Your task to perform on an android device: Go to accessibility settings Image 0: 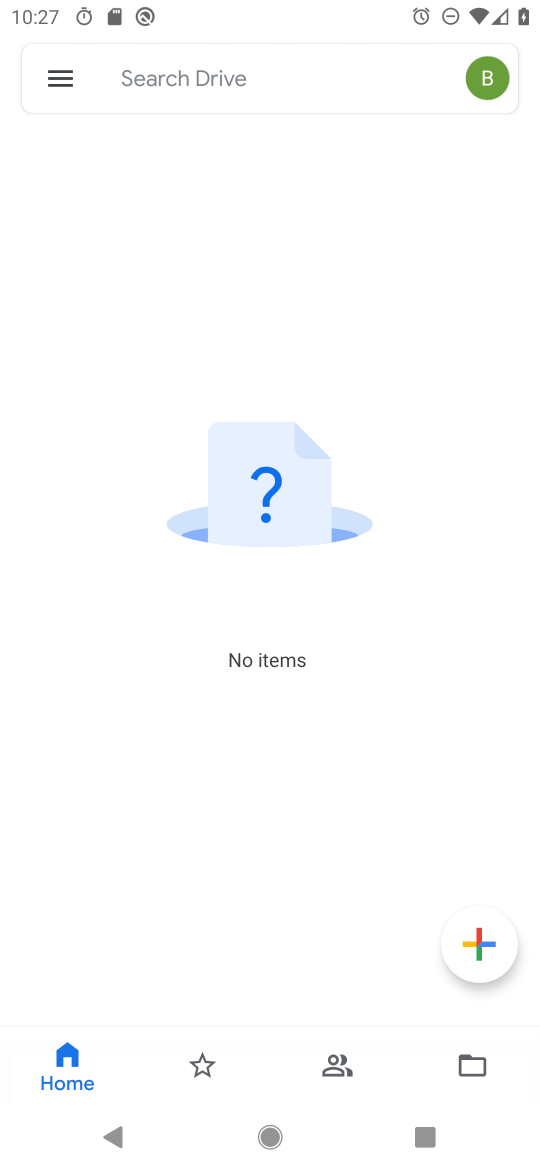
Step 0: press home button
Your task to perform on an android device: Go to accessibility settings Image 1: 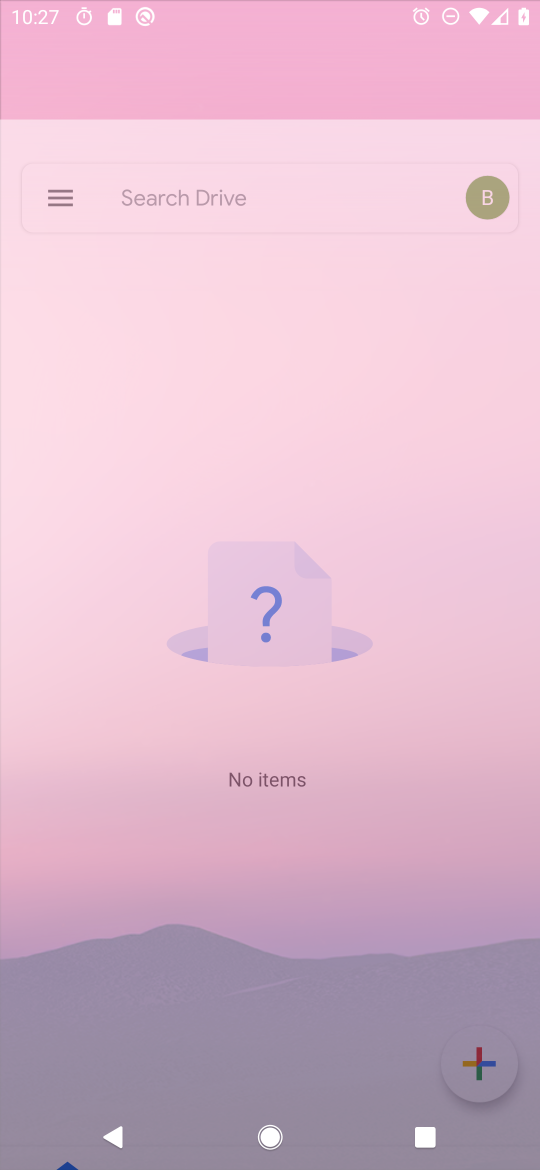
Step 1: drag from (257, 975) to (321, 255)
Your task to perform on an android device: Go to accessibility settings Image 2: 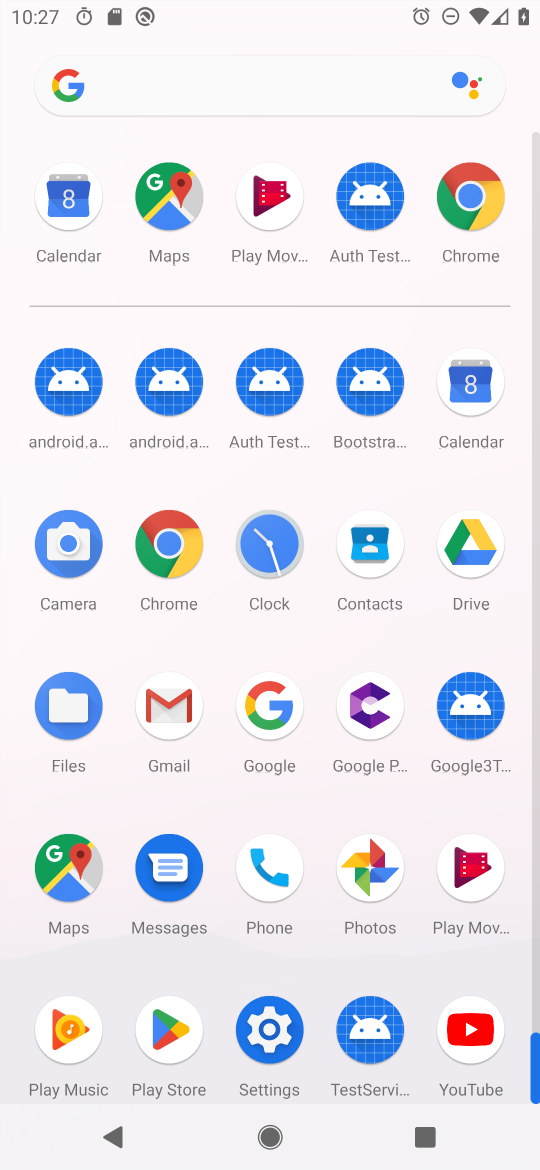
Step 2: drag from (353, 977) to (341, 313)
Your task to perform on an android device: Go to accessibility settings Image 3: 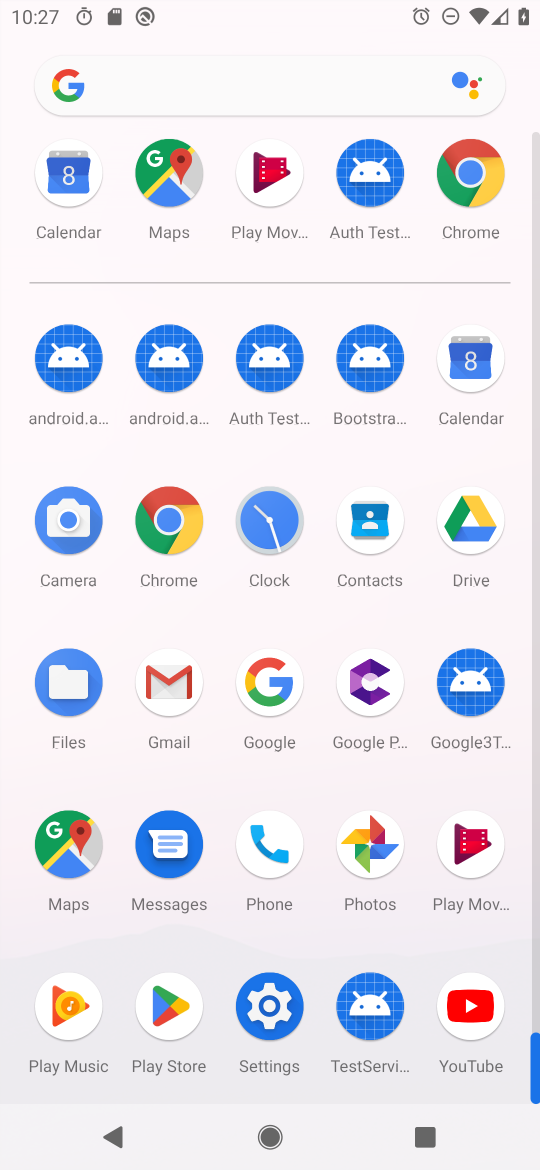
Step 3: click (275, 1001)
Your task to perform on an android device: Go to accessibility settings Image 4: 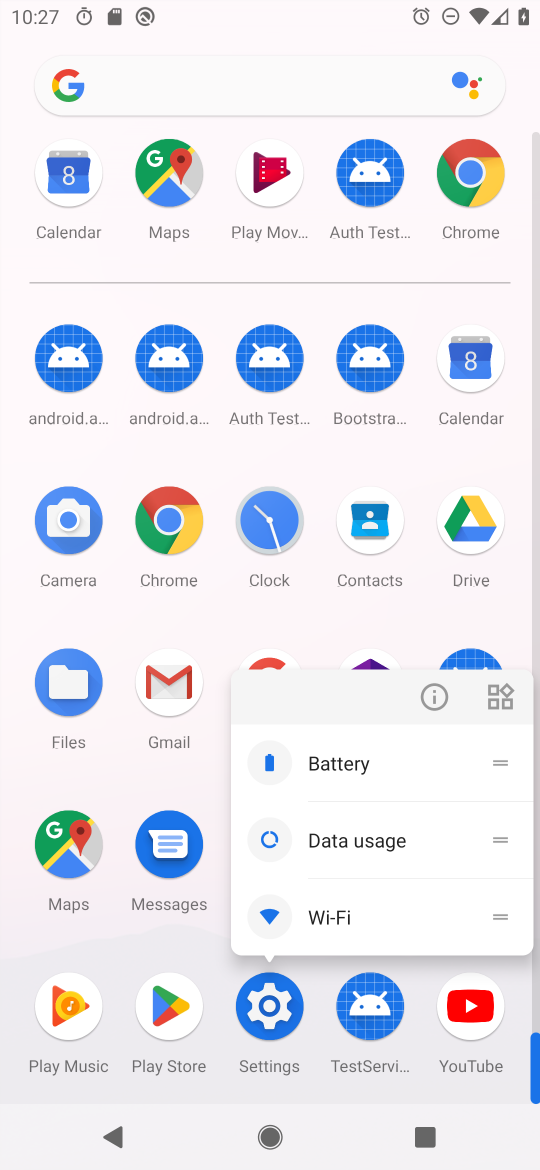
Step 4: click (435, 690)
Your task to perform on an android device: Go to accessibility settings Image 5: 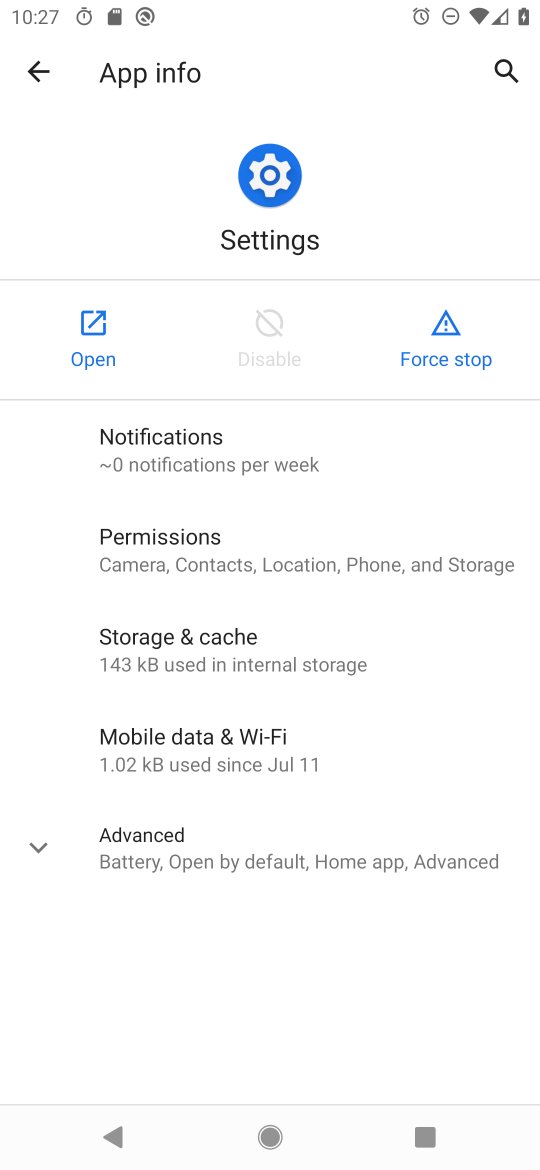
Step 5: click (101, 338)
Your task to perform on an android device: Go to accessibility settings Image 6: 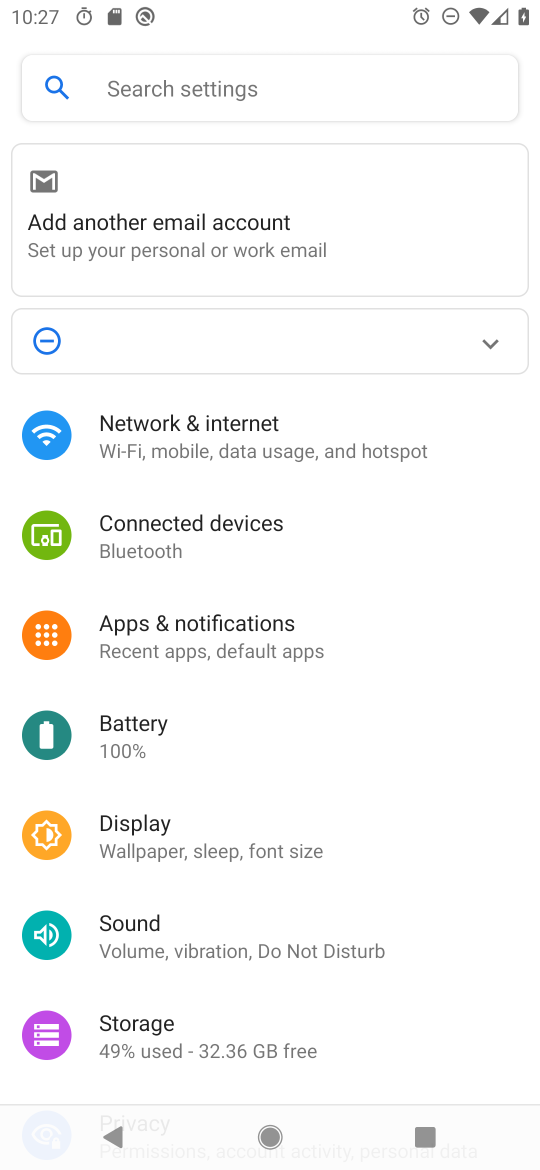
Step 6: drag from (248, 1008) to (353, 327)
Your task to perform on an android device: Go to accessibility settings Image 7: 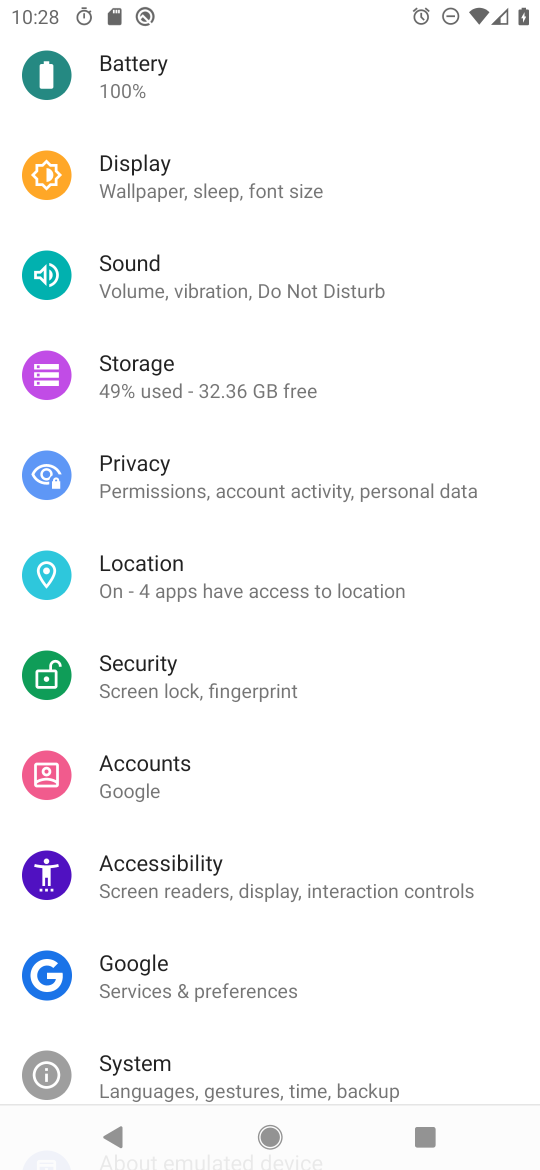
Step 7: click (153, 858)
Your task to perform on an android device: Go to accessibility settings Image 8: 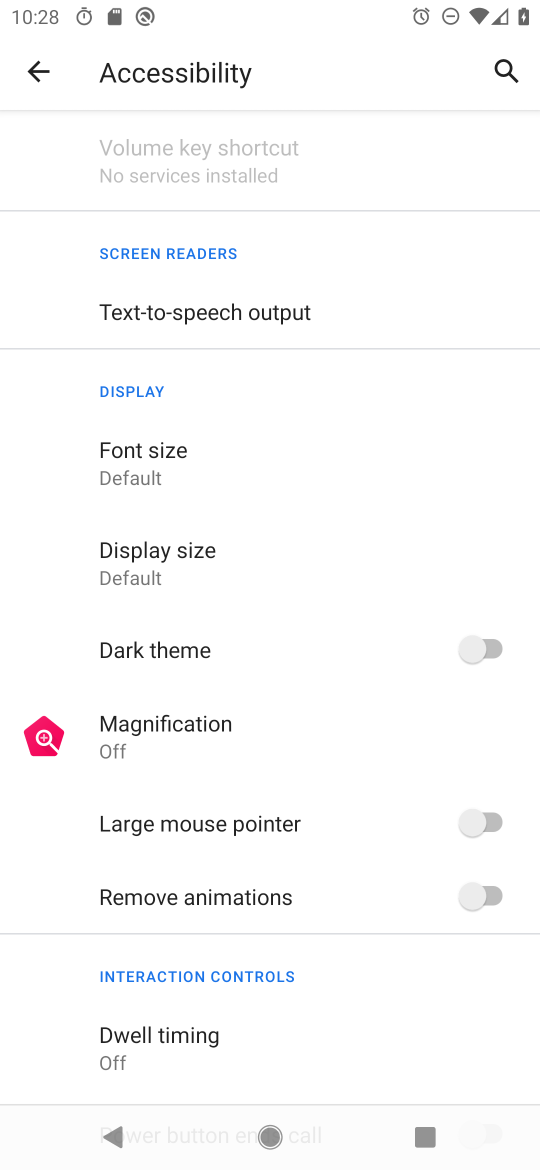
Step 8: task complete